Your task to perform on an android device: toggle sleep mode Image 0: 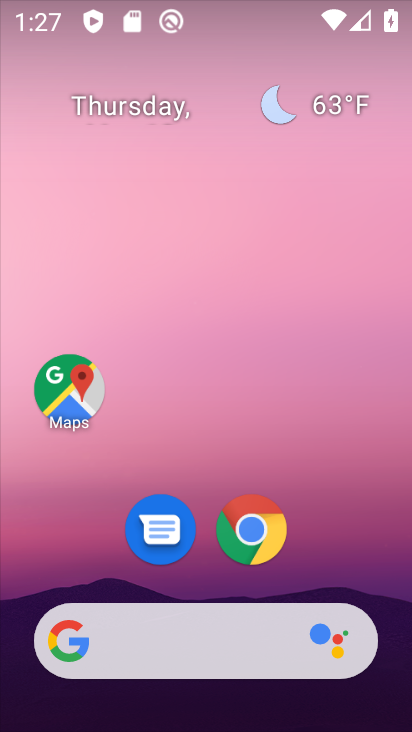
Step 0: drag from (320, 541) to (246, 98)
Your task to perform on an android device: toggle sleep mode Image 1: 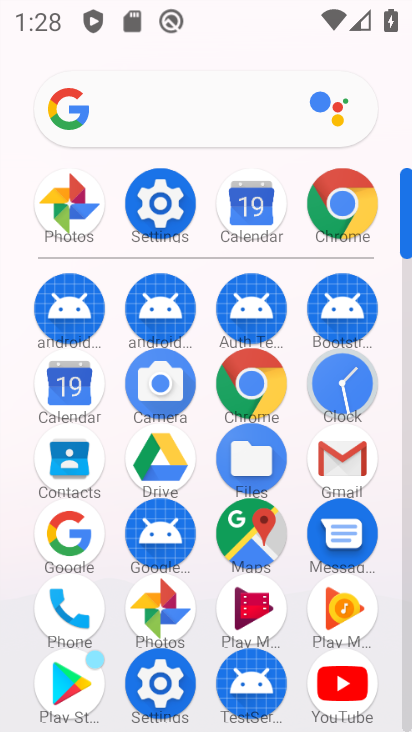
Step 1: click (159, 203)
Your task to perform on an android device: toggle sleep mode Image 2: 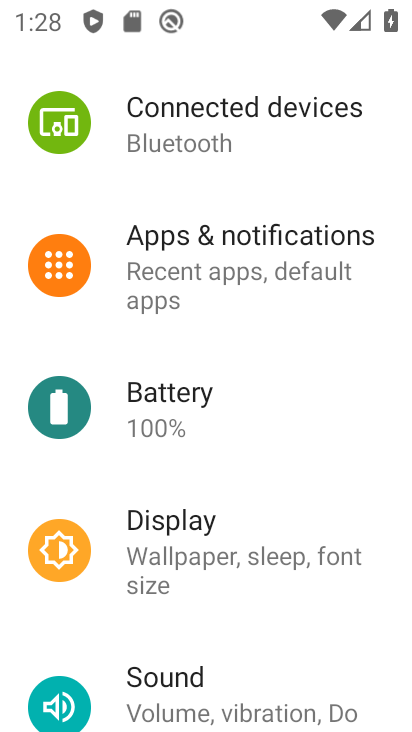
Step 2: drag from (261, 414) to (268, 322)
Your task to perform on an android device: toggle sleep mode Image 3: 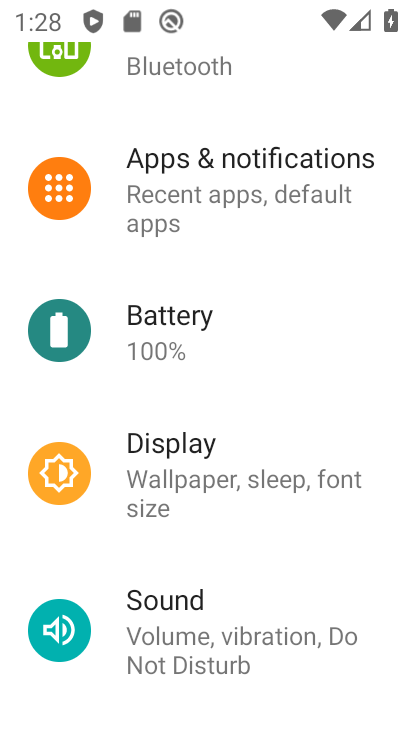
Step 3: drag from (260, 544) to (268, 414)
Your task to perform on an android device: toggle sleep mode Image 4: 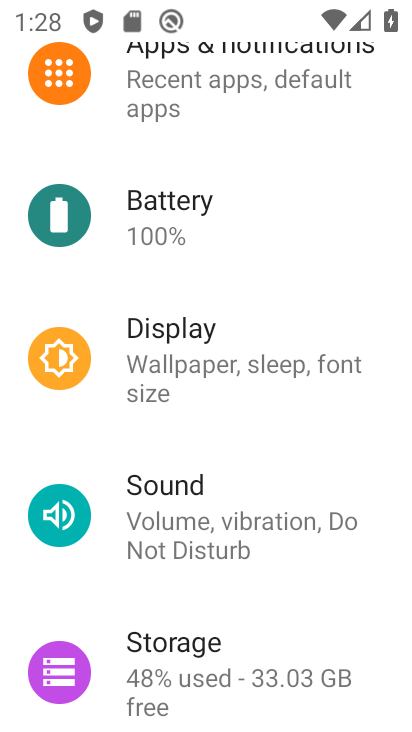
Step 4: click (250, 356)
Your task to perform on an android device: toggle sleep mode Image 5: 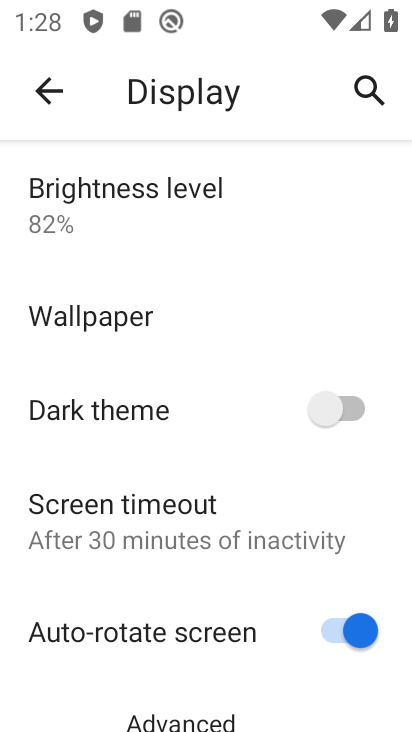
Step 5: click (179, 431)
Your task to perform on an android device: toggle sleep mode Image 6: 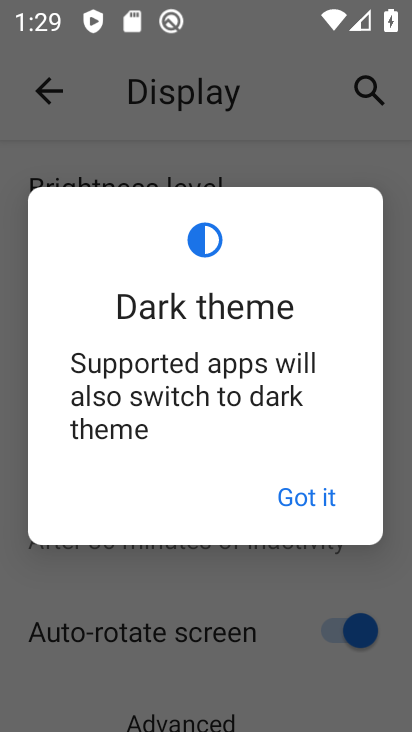
Step 6: click (290, 506)
Your task to perform on an android device: toggle sleep mode Image 7: 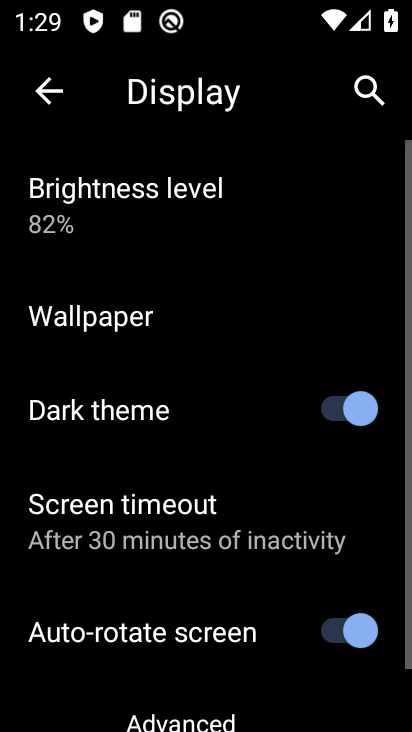
Step 7: drag from (189, 609) to (239, 416)
Your task to perform on an android device: toggle sleep mode Image 8: 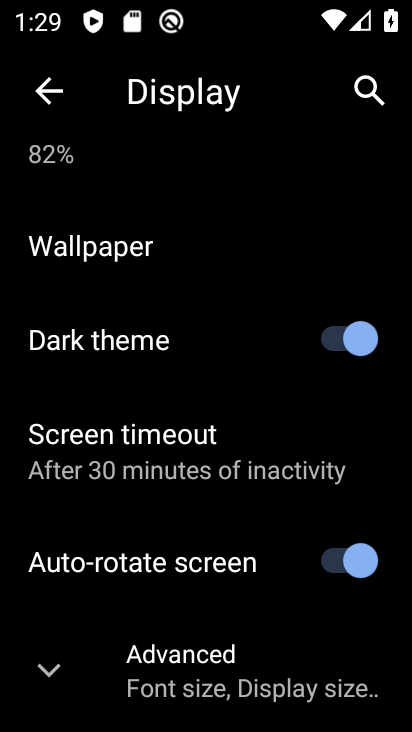
Step 8: drag from (198, 628) to (220, 491)
Your task to perform on an android device: toggle sleep mode Image 9: 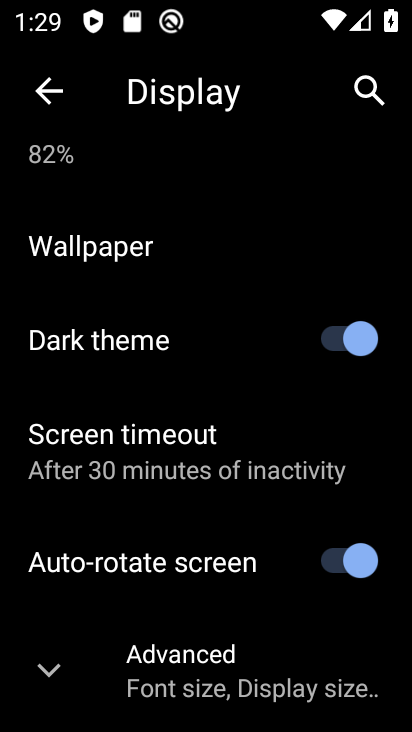
Step 9: click (207, 448)
Your task to perform on an android device: toggle sleep mode Image 10: 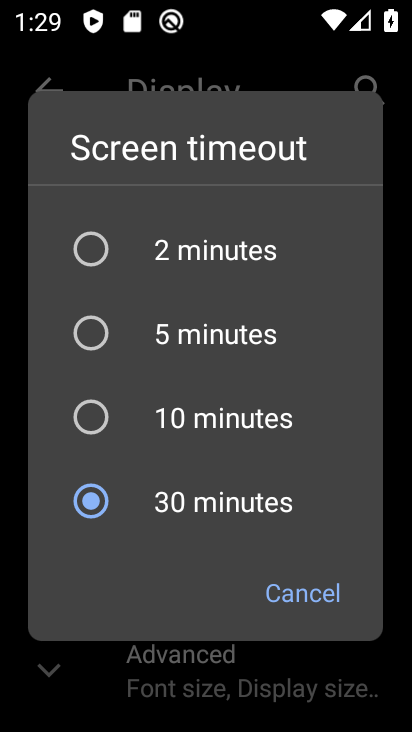
Step 10: click (291, 590)
Your task to perform on an android device: toggle sleep mode Image 11: 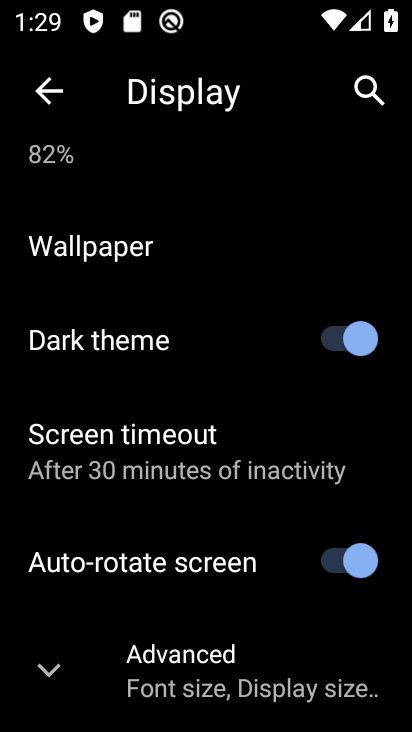
Step 11: click (197, 671)
Your task to perform on an android device: toggle sleep mode Image 12: 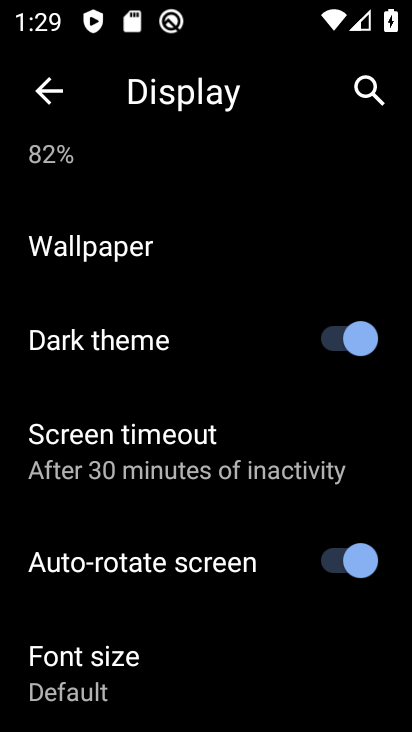
Step 12: task complete